Your task to perform on an android device: toggle show notifications on the lock screen Image 0: 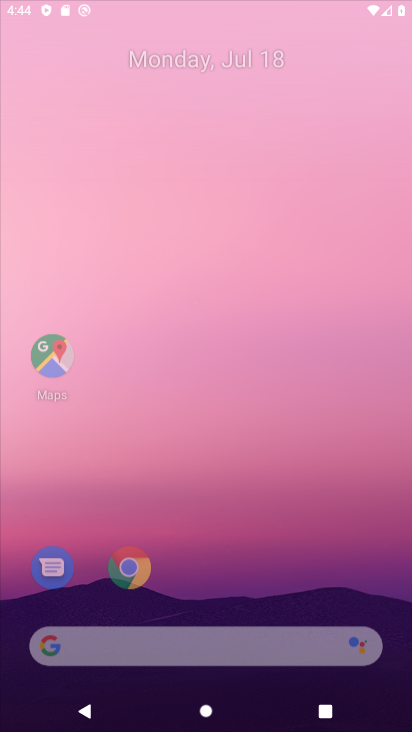
Step 0: click (134, 593)
Your task to perform on an android device: toggle show notifications on the lock screen Image 1: 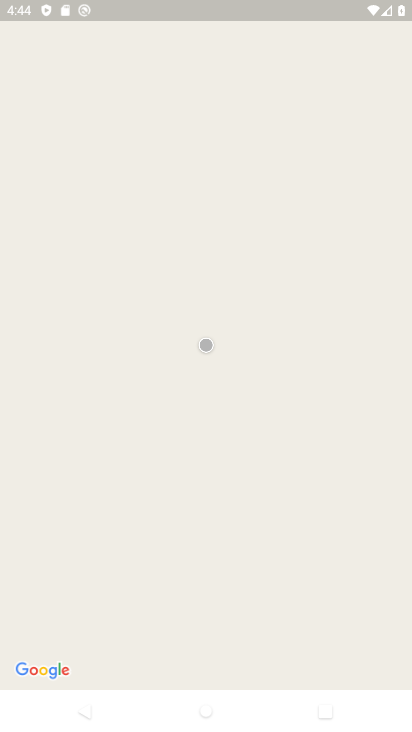
Step 1: press home button
Your task to perform on an android device: toggle show notifications on the lock screen Image 2: 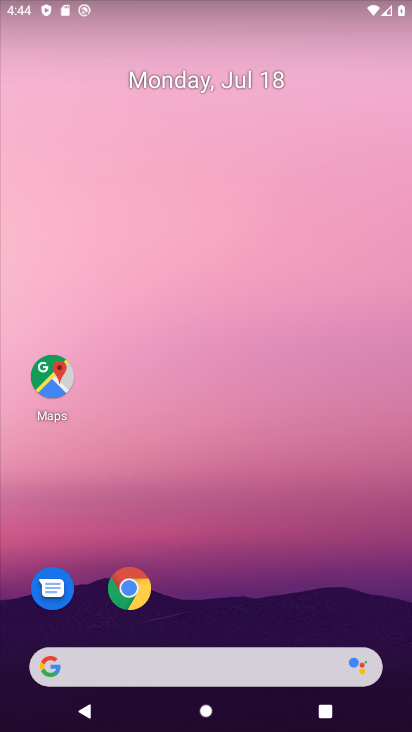
Step 2: drag from (388, 634) to (251, 137)
Your task to perform on an android device: toggle show notifications on the lock screen Image 3: 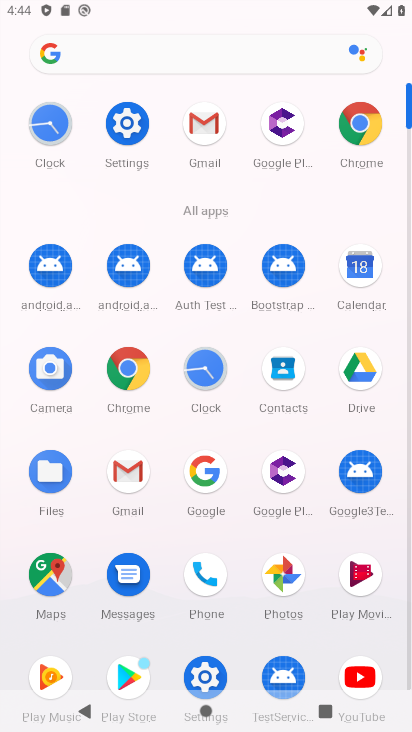
Step 3: click (125, 122)
Your task to perform on an android device: toggle show notifications on the lock screen Image 4: 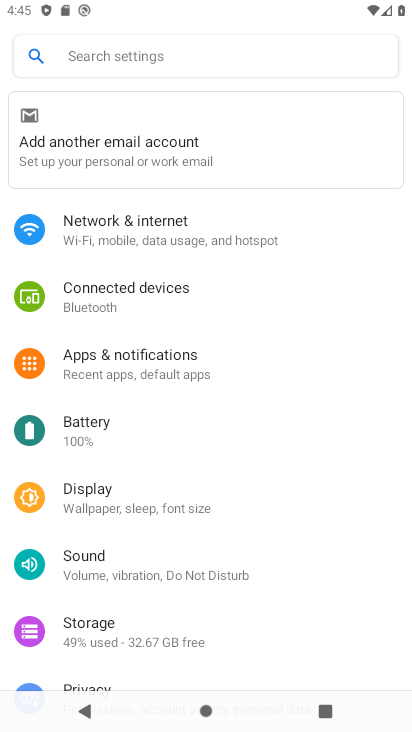
Step 4: click (174, 354)
Your task to perform on an android device: toggle show notifications on the lock screen Image 5: 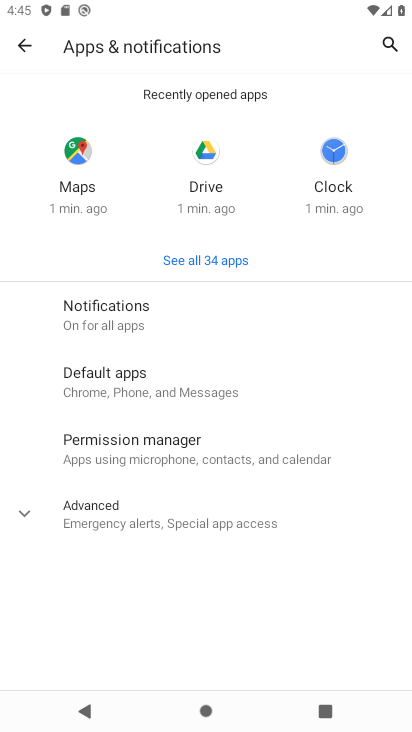
Step 5: click (169, 321)
Your task to perform on an android device: toggle show notifications on the lock screen Image 6: 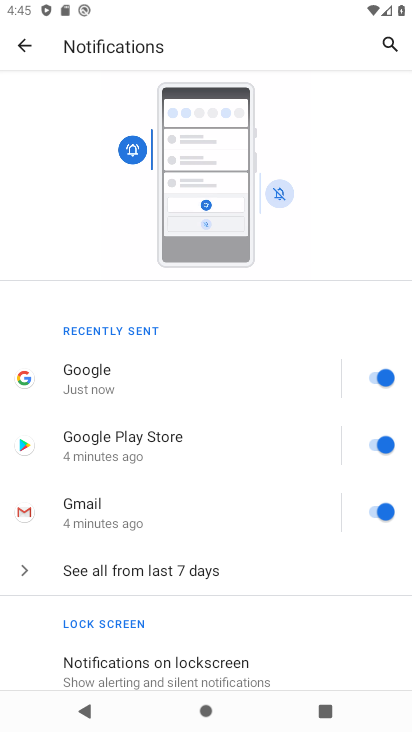
Step 6: drag from (252, 624) to (211, 344)
Your task to perform on an android device: toggle show notifications on the lock screen Image 7: 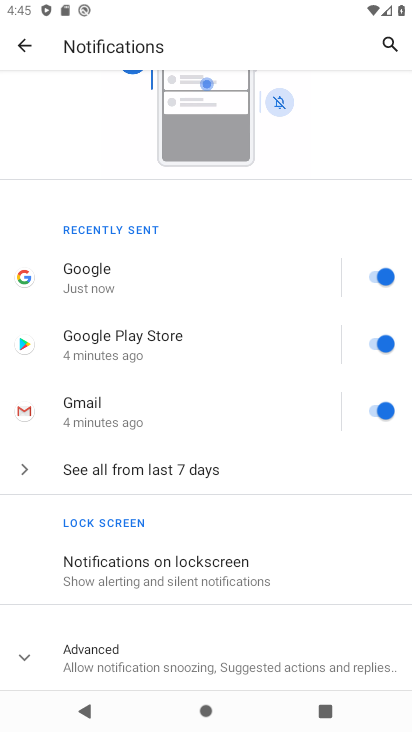
Step 7: click (267, 559)
Your task to perform on an android device: toggle show notifications on the lock screen Image 8: 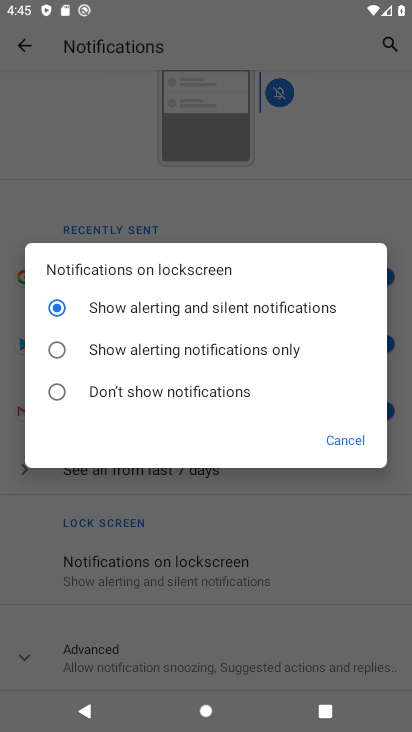
Step 8: click (246, 366)
Your task to perform on an android device: toggle show notifications on the lock screen Image 9: 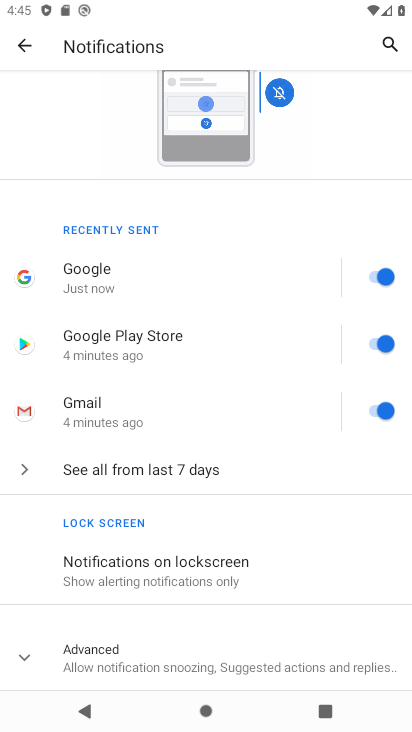
Step 9: task complete